Your task to perform on an android device: turn off translation in the chrome app Image 0: 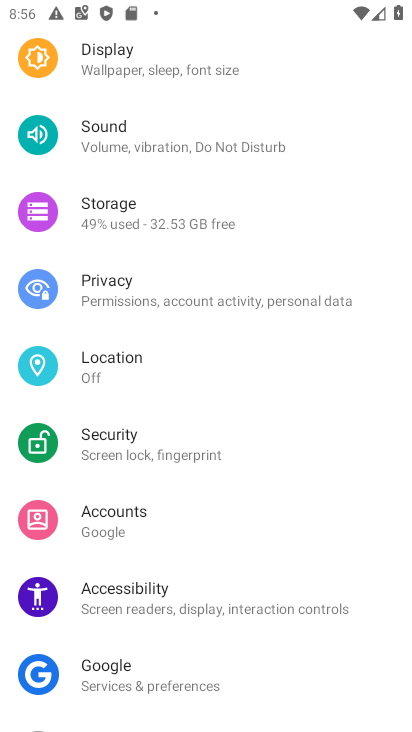
Step 0: press home button
Your task to perform on an android device: turn off translation in the chrome app Image 1: 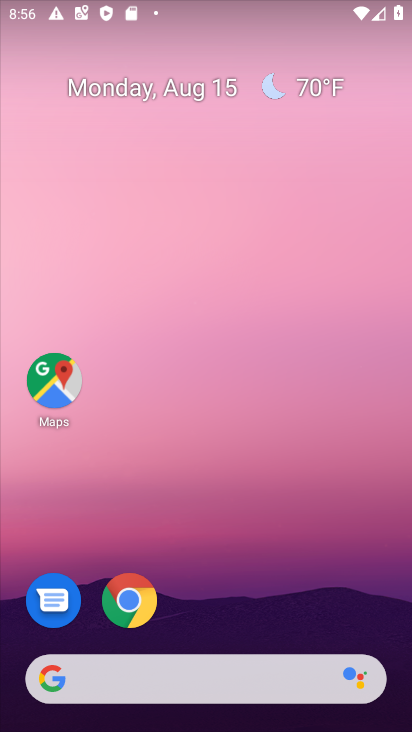
Step 1: drag from (187, 530) to (180, 123)
Your task to perform on an android device: turn off translation in the chrome app Image 2: 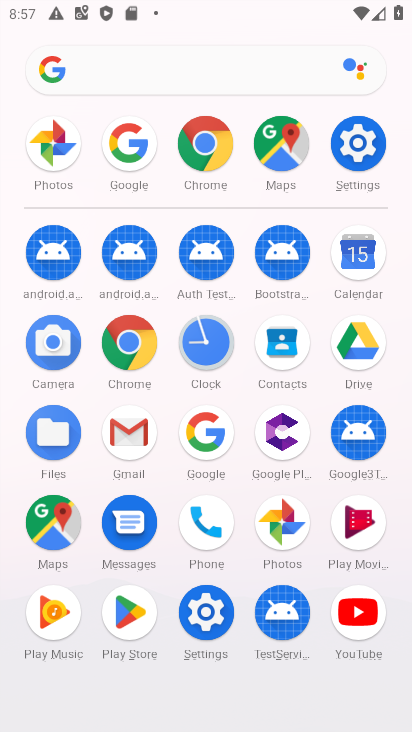
Step 2: click (123, 341)
Your task to perform on an android device: turn off translation in the chrome app Image 3: 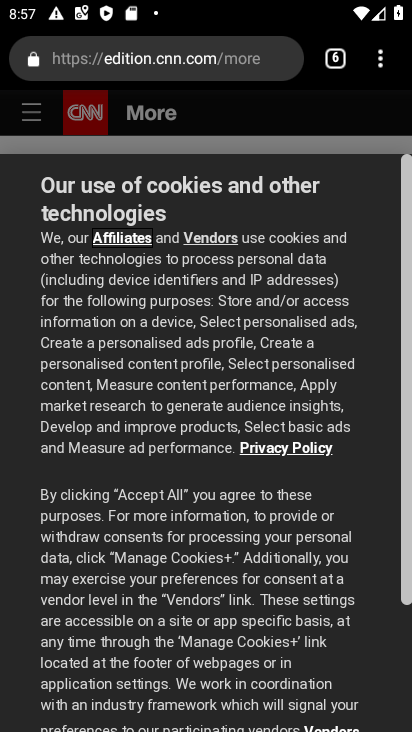
Step 3: click (379, 70)
Your task to perform on an android device: turn off translation in the chrome app Image 4: 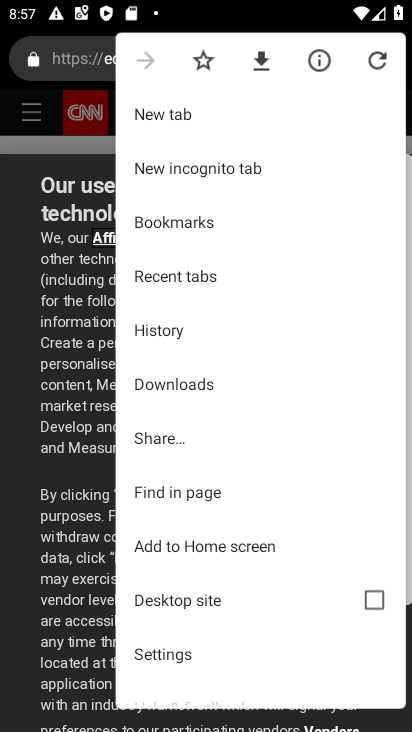
Step 4: click (162, 656)
Your task to perform on an android device: turn off translation in the chrome app Image 5: 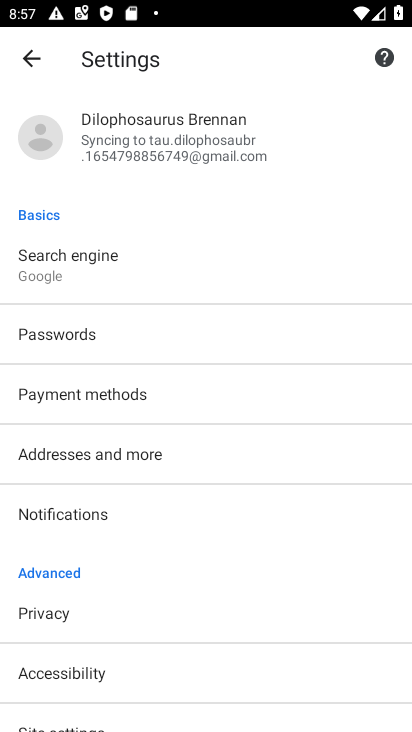
Step 5: drag from (70, 659) to (70, 338)
Your task to perform on an android device: turn off translation in the chrome app Image 6: 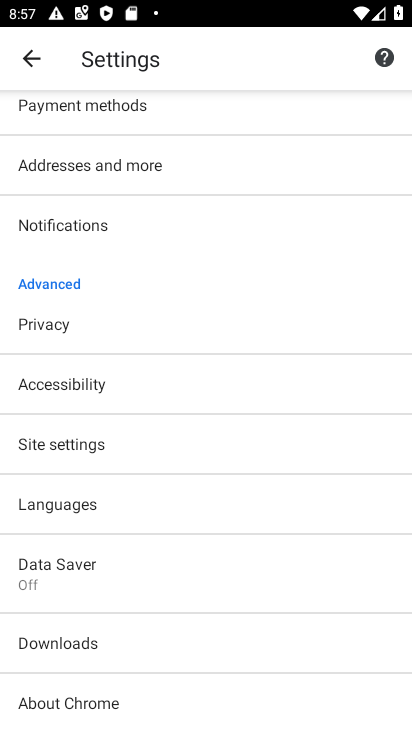
Step 6: click (73, 505)
Your task to perform on an android device: turn off translation in the chrome app Image 7: 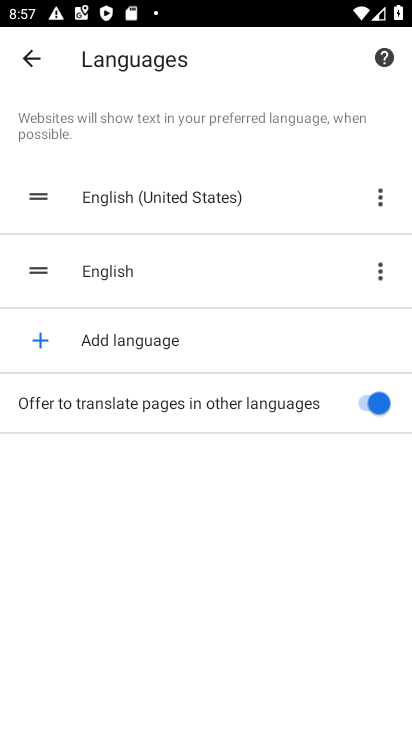
Step 7: click (370, 407)
Your task to perform on an android device: turn off translation in the chrome app Image 8: 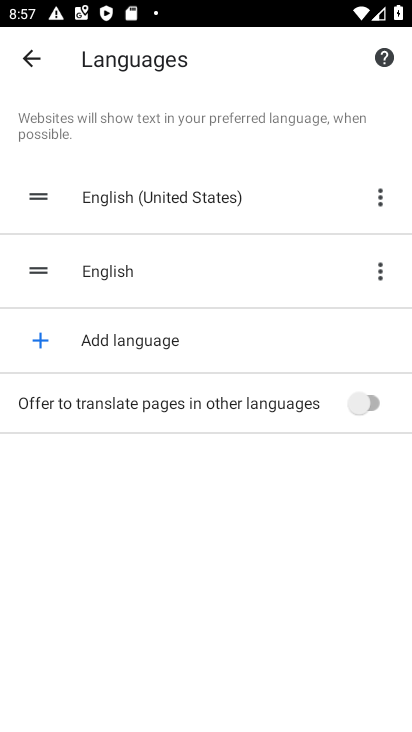
Step 8: task complete